Your task to perform on an android device: Open wifi settings Image 0: 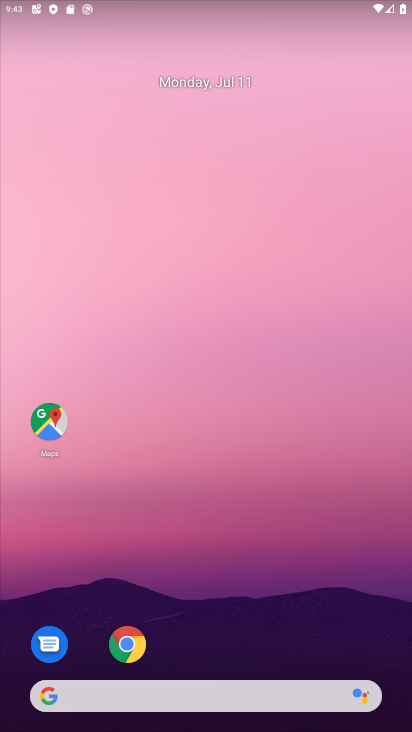
Step 0: drag from (238, 665) to (245, 166)
Your task to perform on an android device: Open wifi settings Image 1: 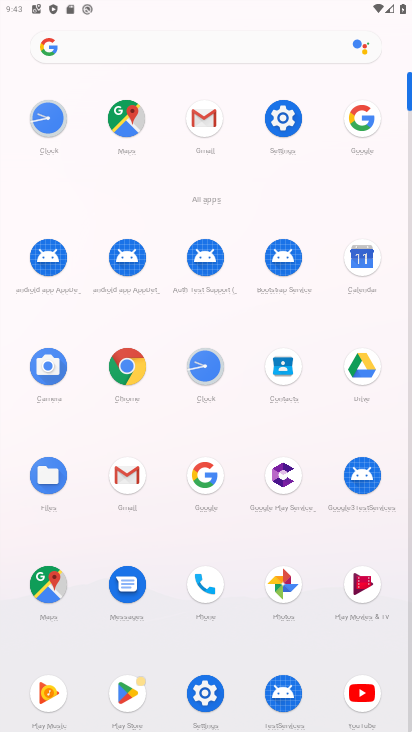
Step 1: click (290, 91)
Your task to perform on an android device: Open wifi settings Image 2: 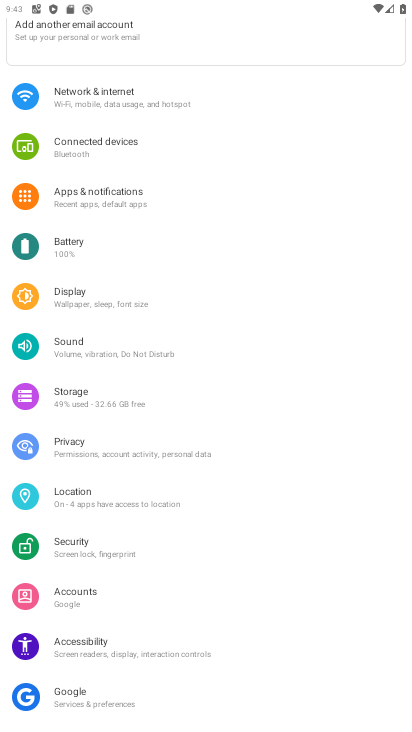
Step 2: click (135, 87)
Your task to perform on an android device: Open wifi settings Image 3: 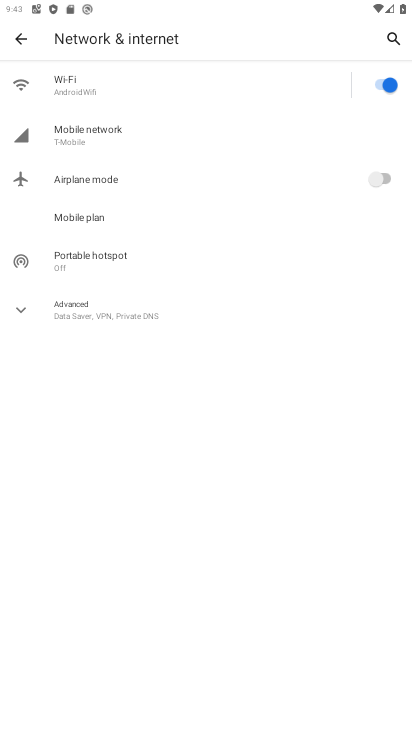
Step 3: drag from (382, 86) to (222, 555)
Your task to perform on an android device: Open wifi settings Image 4: 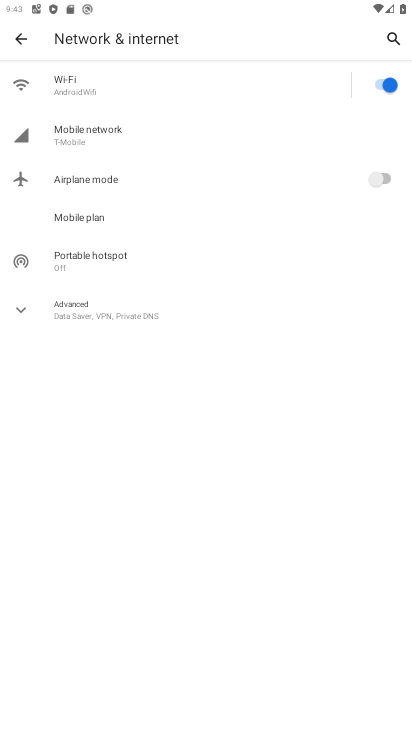
Step 4: click (136, 90)
Your task to perform on an android device: Open wifi settings Image 5: 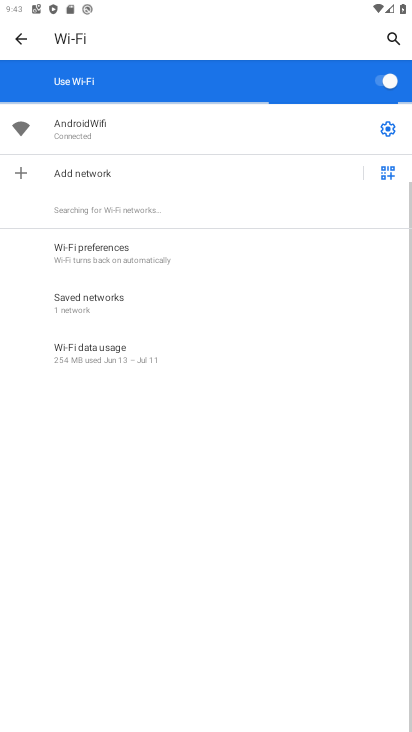
Step 5: click (387, 125)
Your task to perform on an android device: Open wifi settings Image 6: 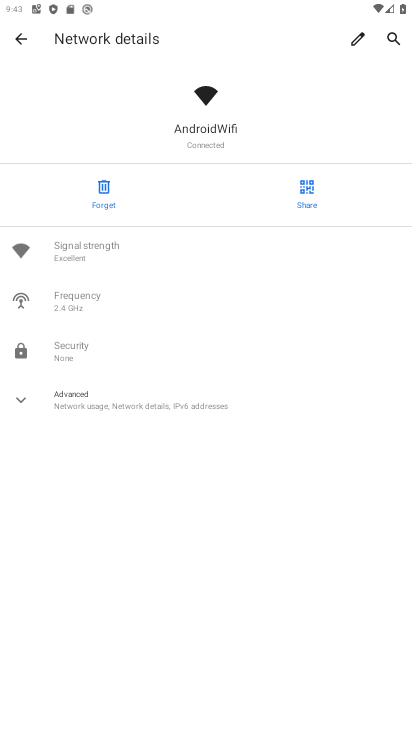
Step 6: task complete